Your task to perform on an android device: clear all cookies in the chrome app Image 0: 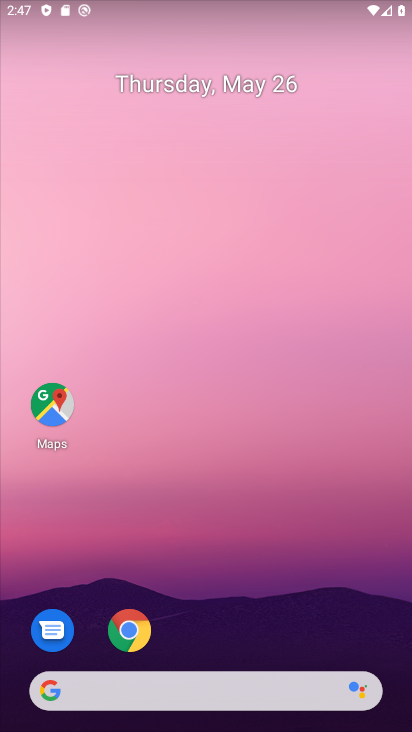
Step 0: click (129, 629)
Your task to perform on an android device: clear all cookies in the chrome app Image 1: 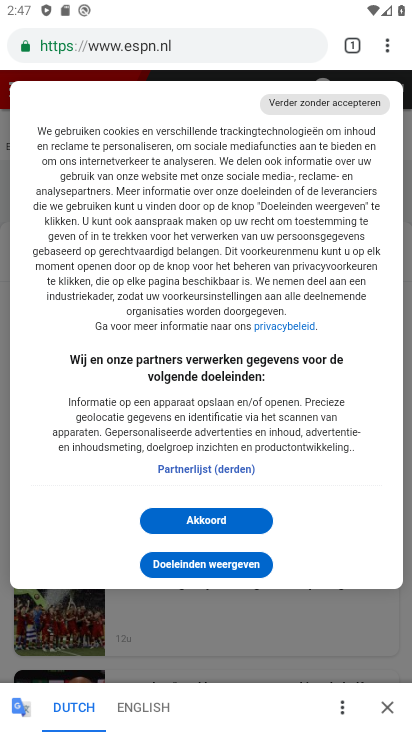
Step 1: click (387, 42)
Your task to perform on an android device: clear all cookies in the chrome app Image 2: 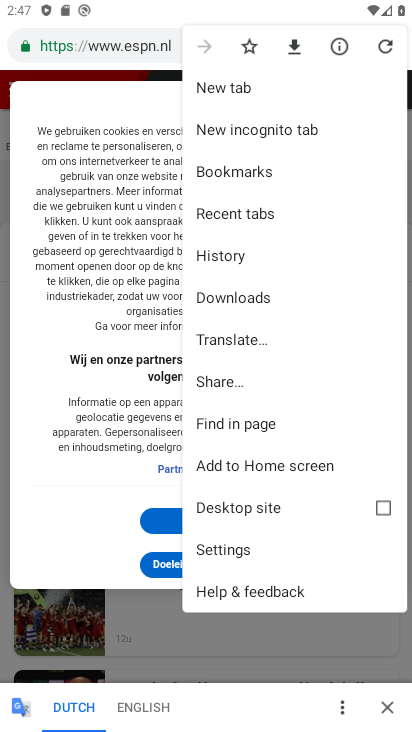
Step 2: click (231, 545)
Your task to perform on an android device: clear all cookies in the chrome app Image 3: 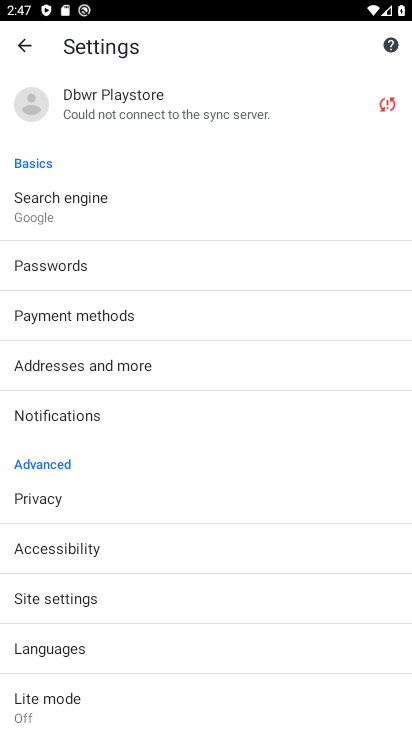
Step 3: click (40, 499)
Your task to perform on an android device: clear all cookies in the chrome app Image 4: 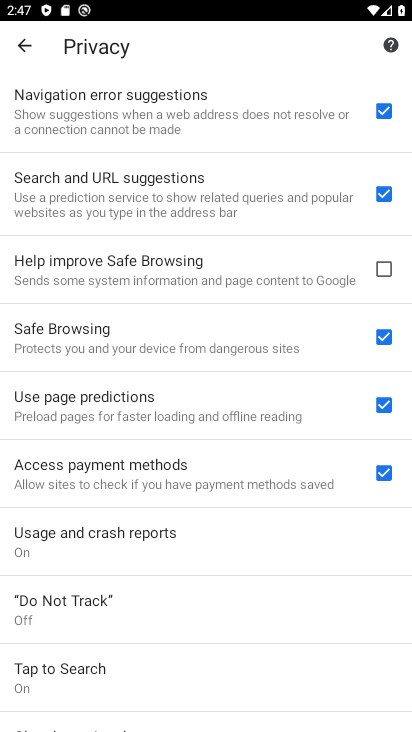
Step 4: drag from (156, 663) to (204, 558)
Your task to perform on an android device: clear all cookies in the chrome app Image 5: 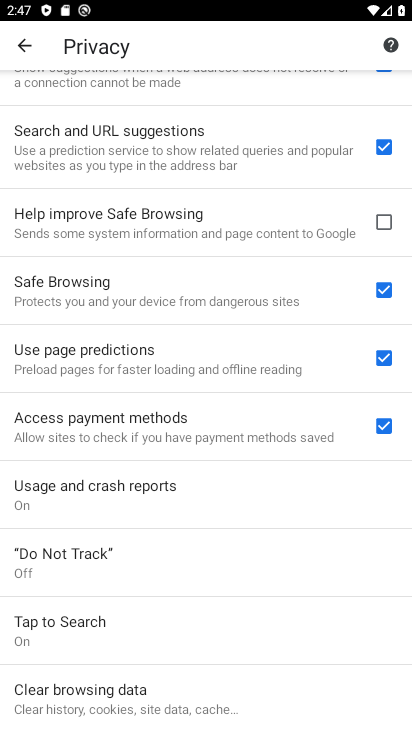
Step 5: click (121, 688)
Your task to perform on an android device: clear all cookies in the chrome app Image 6: 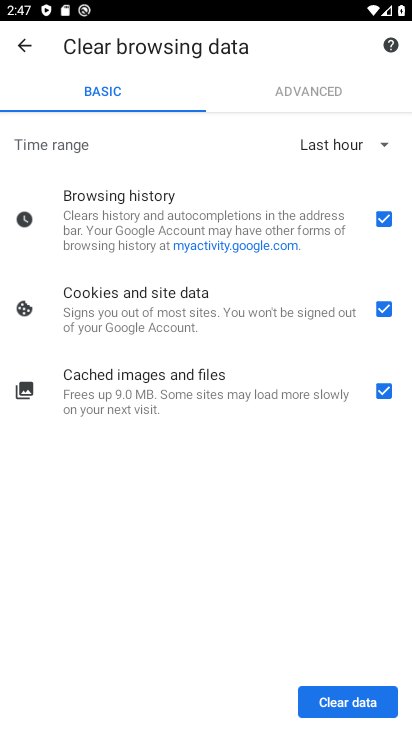
Step 6: click (348, 699)
Your task to perform on an android device: clear all cookies in the chrome app Image 7: 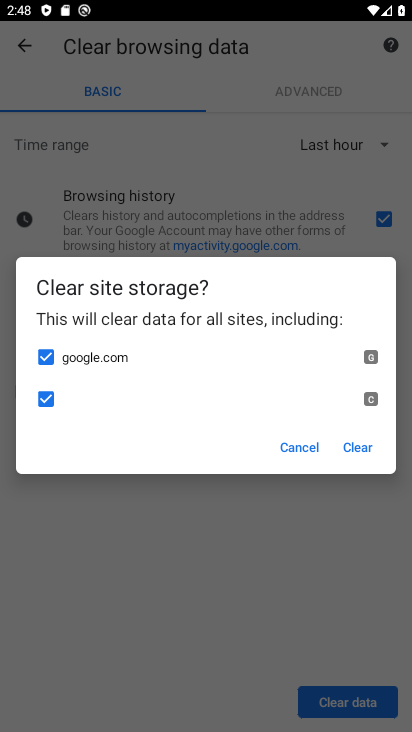
Step 7: click (360, 442)
Your task to perform on an android device: clear all cookies in the chrome app Image 8: 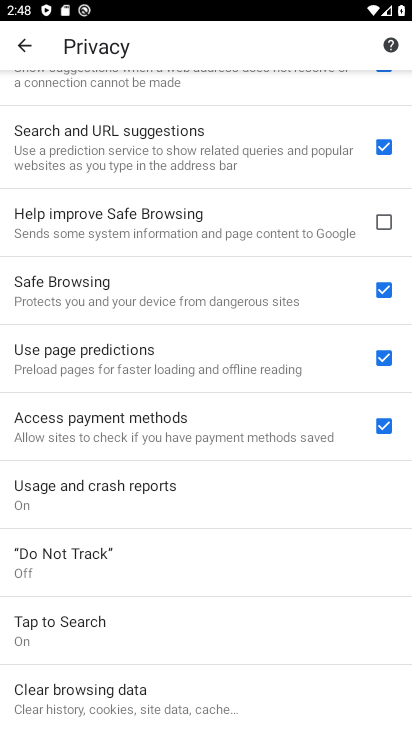
Step 8: task complete